Your task to perform on an android device: find photos in the google photos app Image 0: 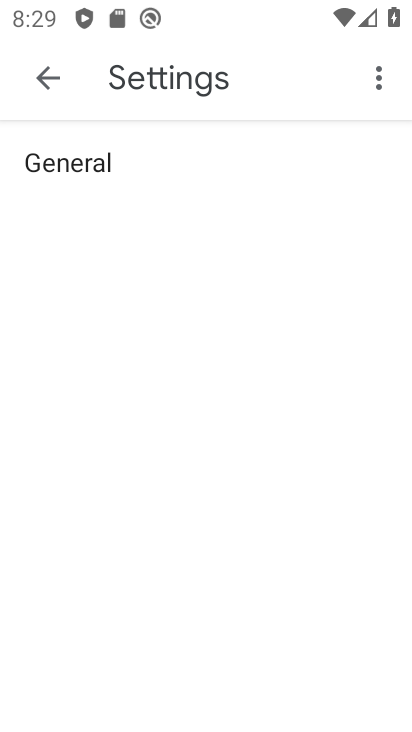
Step 0: press home button
Your task to perform on an android device: find photos in the google photos app Image 1: 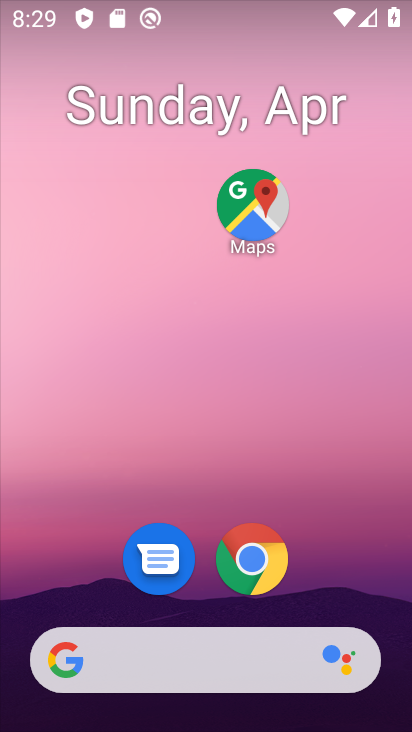
Step 1: drag from (11, 703) to (141, 271)
Your task to perform on an android device: find photos in the google photos app Image 2: 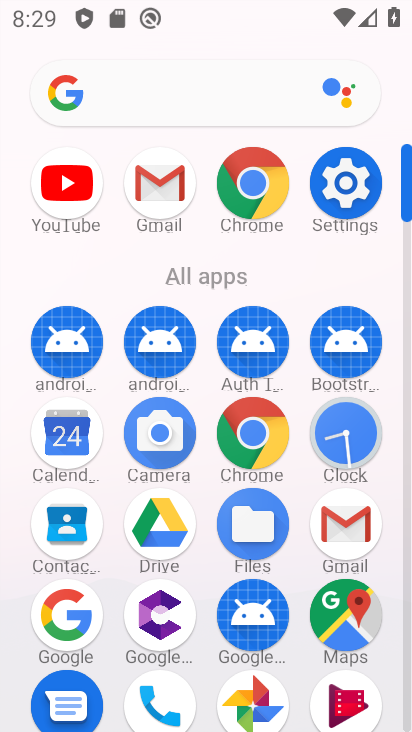
Step 2: click (260, 698)
Your task to perform on an android device: find photos in the google photos app Image 3: 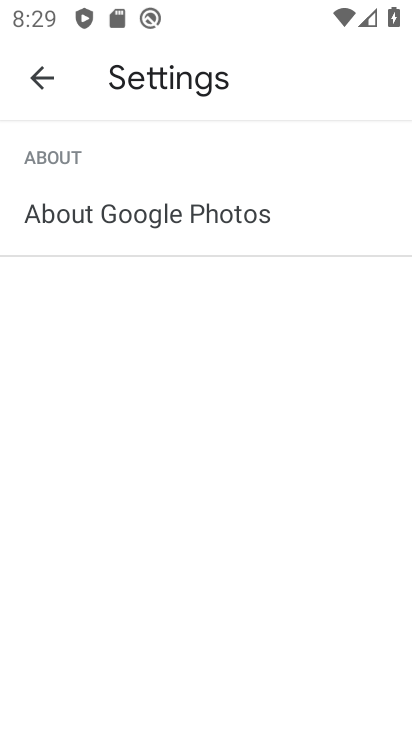
Step 3: click (27, 69)
Your task to perform on an android device: find photos in the google photos app Image 4: 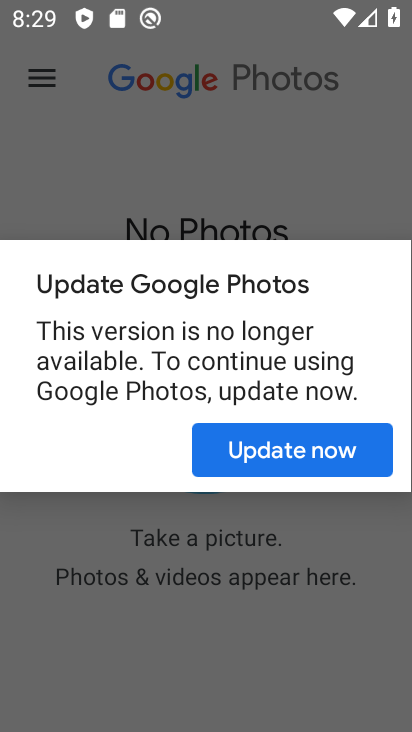
Step 4: click (285, 459)
Your task to perform on an android device: find photos in the google photos app Image 5: 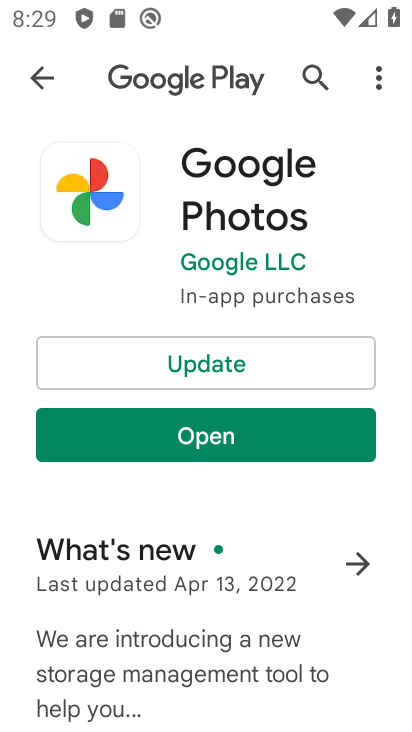
Step 5: click (250, 444)
Your task to perform on an android device: find photos in the google photos app Image 6: 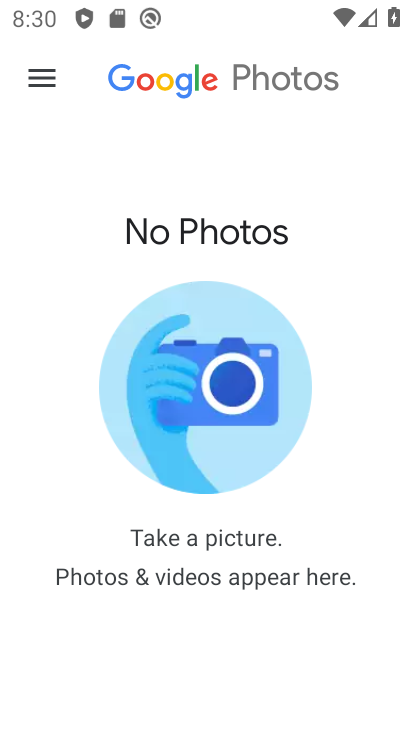
Step 6: click (54, 83)
Your task to perform on an android device: find photos in the google photos app Image 7: 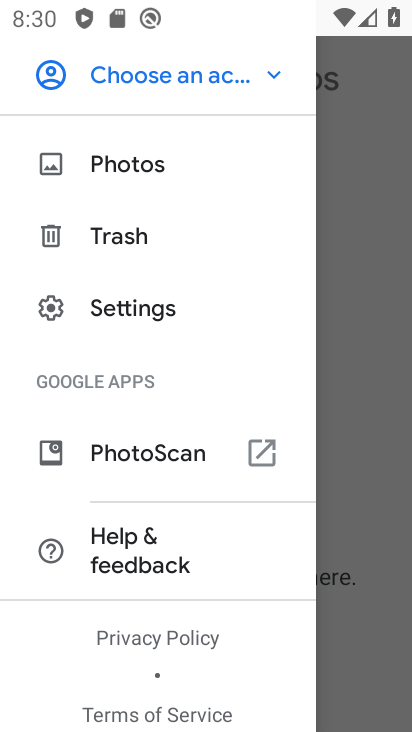
Step 7: click (106, 154)
Your task to perform on an android device: find photos in the google photos app Image 8: 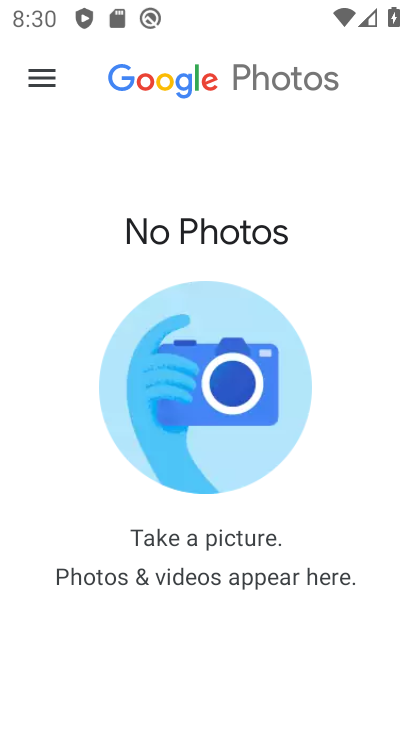
Step 8: task complete